Your task to perform on an android device: Open location settings Image 0: 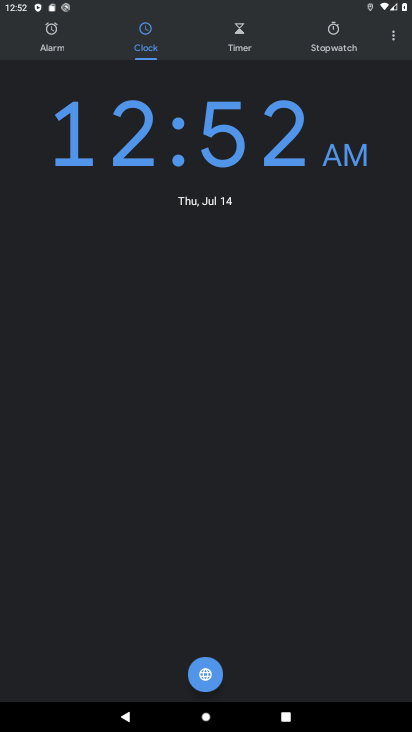
Step 0: press home button
Your task to perform on an android device: Open location settings Image 1: 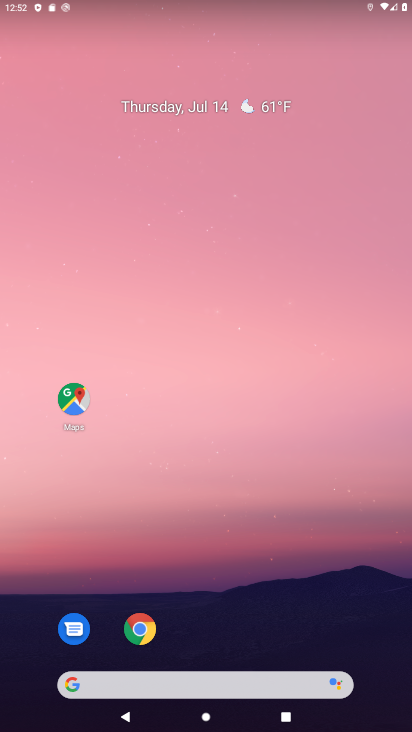
Step 1: drag from (242, 557) to (280, 109)
Your task to perform on an android device: Open location settings Image 2: 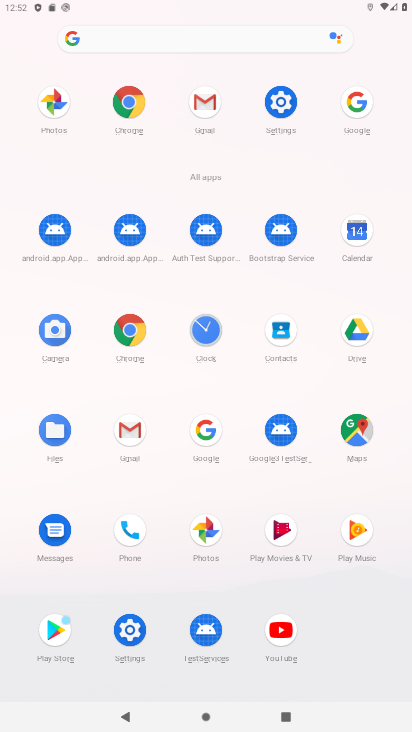
Step 2: click (131, 627)
Your task to perform on an android device: Open location settings Image 3: 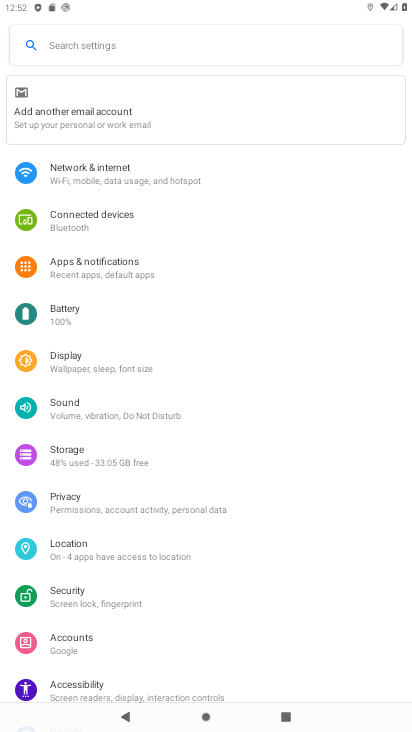
Step 3: click (95, 547)
Your task to perform on an android device: Open location settings Image 4: 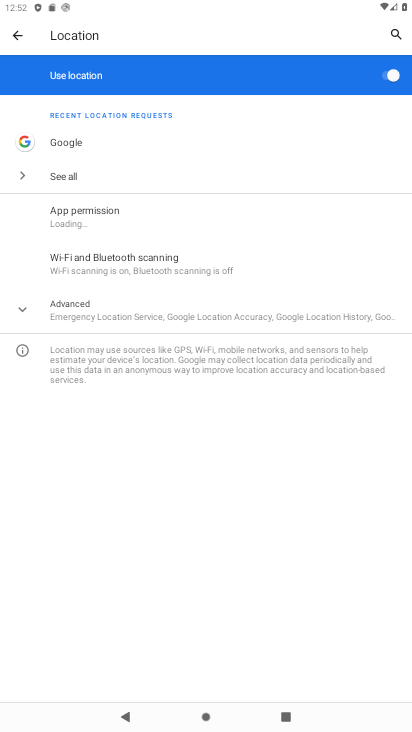
Step 4: task complete